Your task to perform on an android device: Open battery settings Image 0: 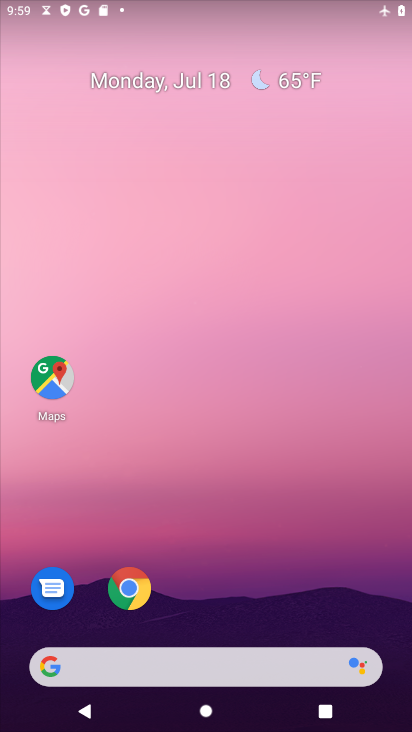
Step 0: drag from (205, 666) to (181, 75)
Your task to perform on an android device: Open battery settings Image 1: 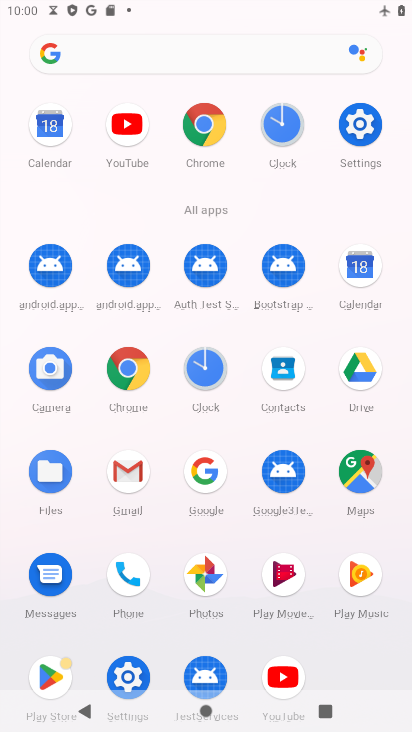
Step 1: click (358, 125)
Your task to perform on an android device: Open battery settings Image 2: 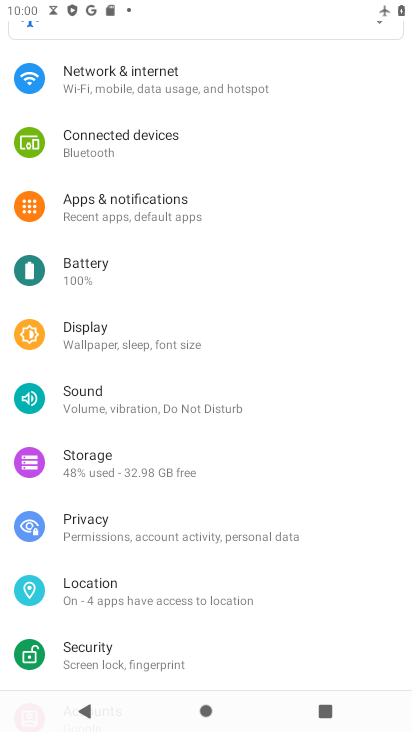
Step 2: click (98, 266)
Your task to perform on an android device: Open battery settings Image 3: 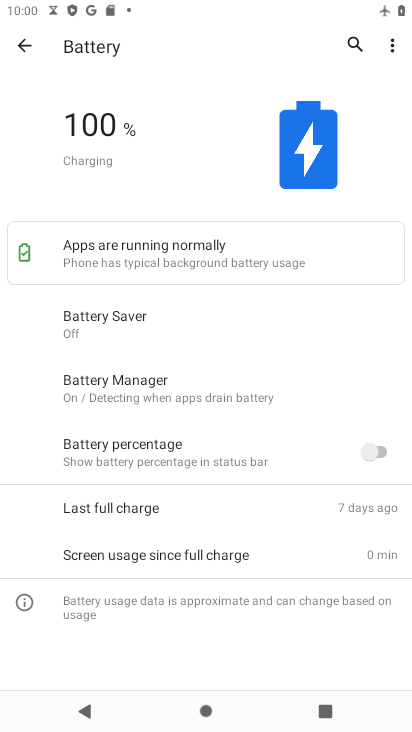
Step 3: task complete